Your task to perform on an android device: Go to ESPN.com Image 0: 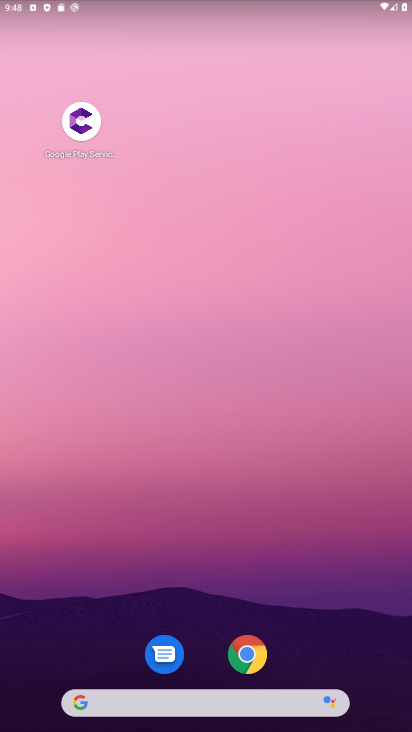
Step 0: click (105, 705)
Your task to perform on an android device: Go to ESPN.com Image 1: 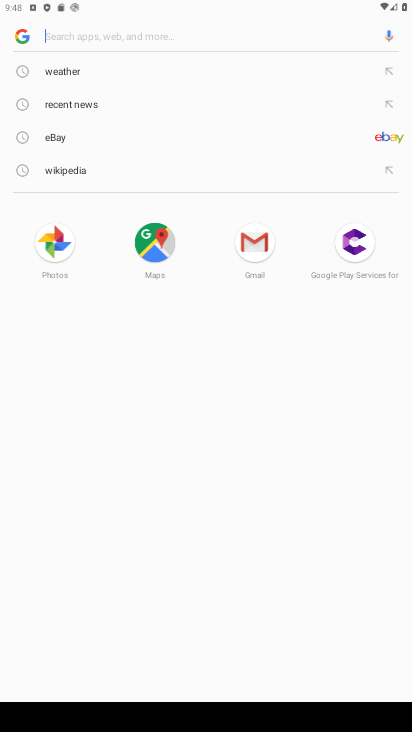
Step 1: type "ESPN.com"
Your task to perform on an android device: Go to ESPN.com Image 2: 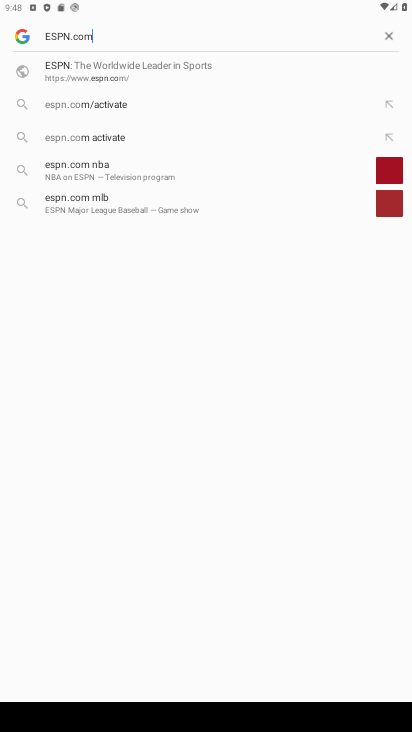
Step 2: type ""
Your task to perform on an android device: Go to ESPN.com Image 3: 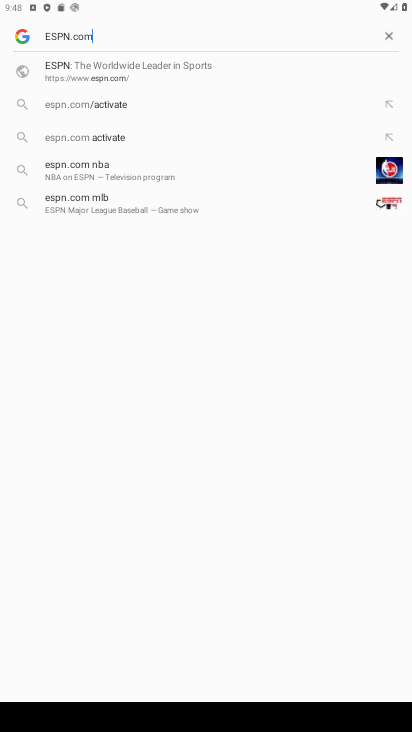
Step 3: click (51, 65)
Your task to perform on an android device: Go to ESPN.com Image 4: 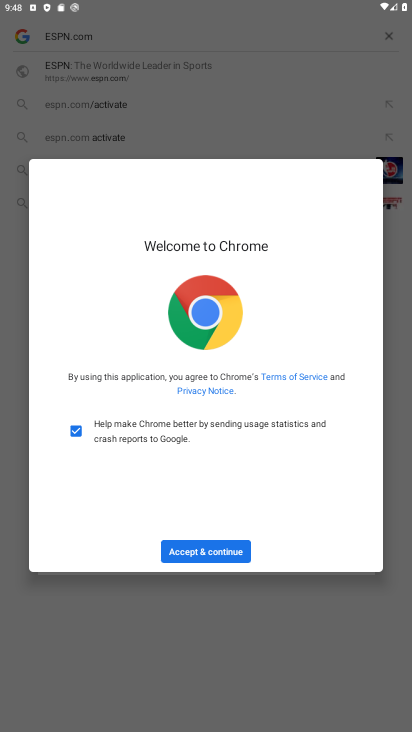
Step 4: click (187, 556)
Your task to perform on an android device: Go to ESPN.com Image 5: 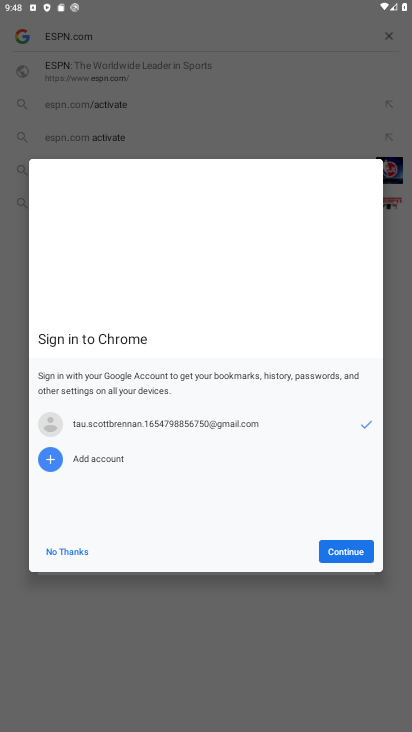
Step 5: click (324, 549)
Your task to perform on an android device: Go to ESPN.com Image 6: 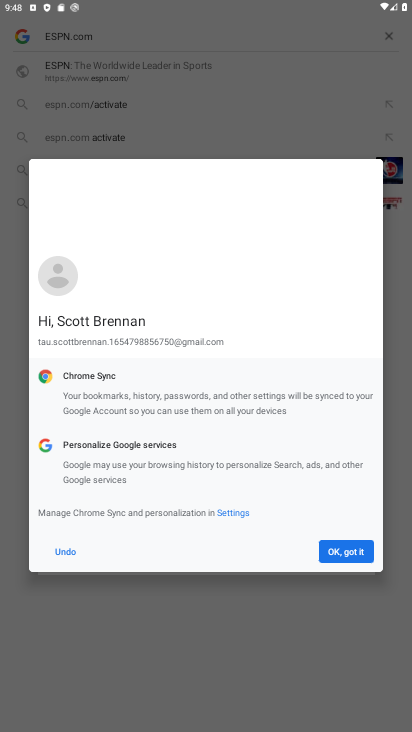
Step 6: click (366, 559)
Your task to perform on an android device: Go to ESPN.com Image 7: 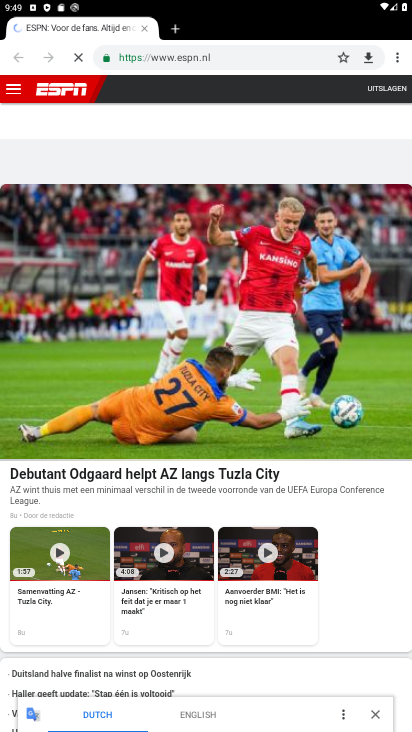
Step 7: task complete